Your task to perform on an android device: clear history in the chrome app Image 0: 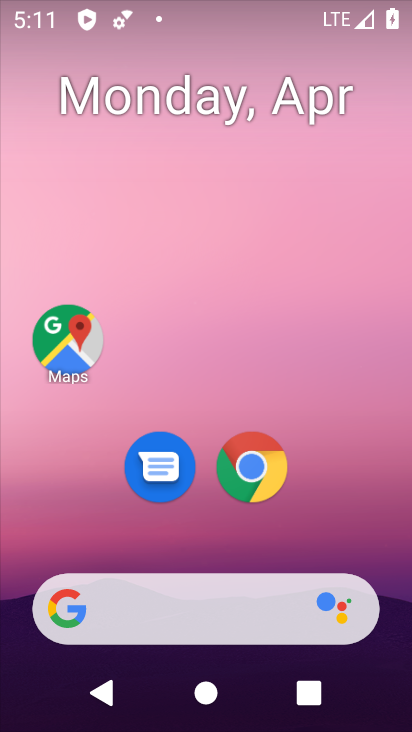
Step 0: click (340, 6)
Your task to perform on an android device: clear history in the chrome app Image 1: 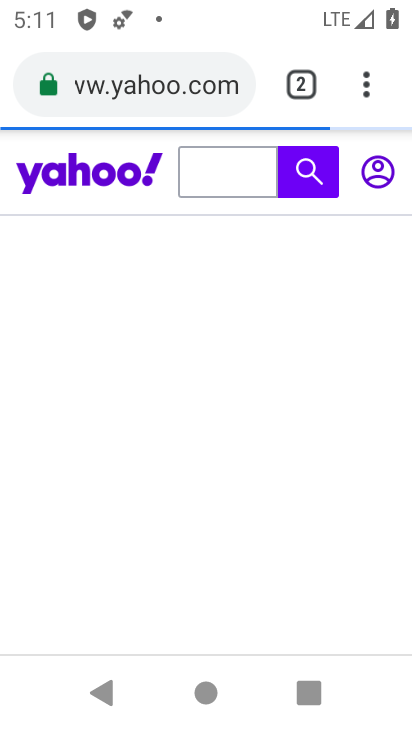
Step 1: drag from (367, 79) to (227, 488)
Your task to perform on an android device: clear history in the chrome app Image 2: 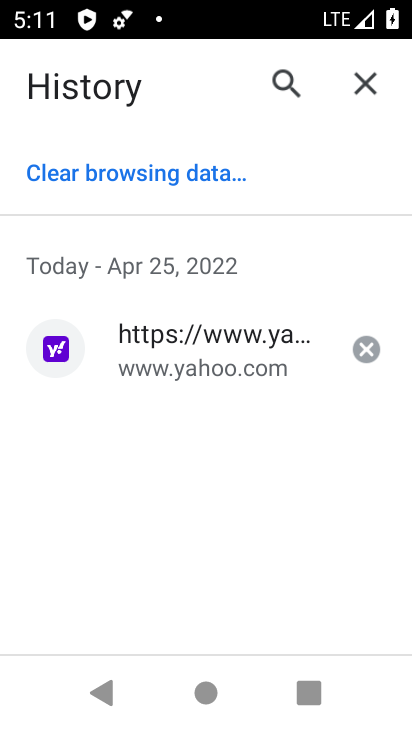
Step 2: click (204, 179)
Your task to perform on an android device: clear history in the chrome app Image 3: 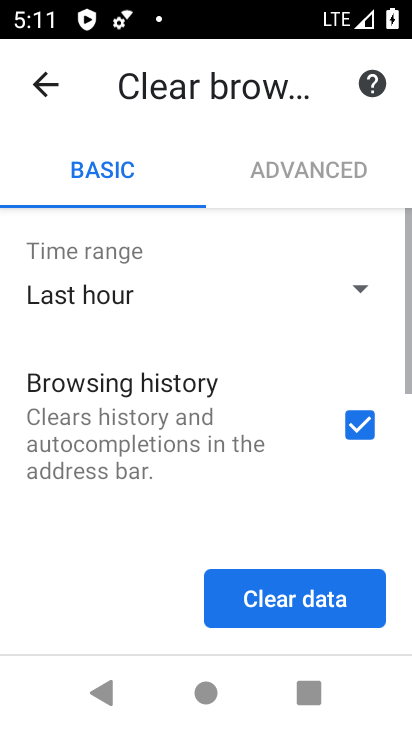
Step 3: click (348, 575)
Your task to perform on an android device: clear history in the chrome app Image 4: 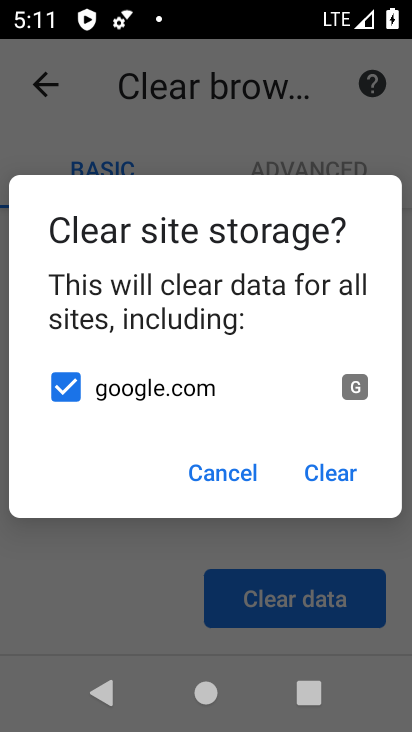
Step 4: click (338, 471)
Your task to perform on an android device: clear history in the chrome app Image 5: 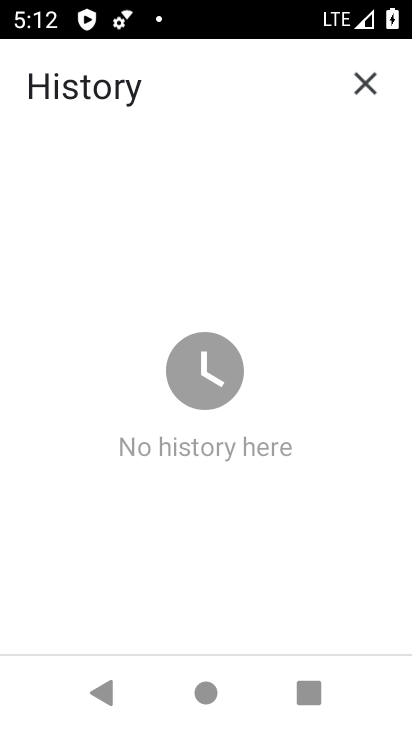
Step 5: task complete